Your task to perform on an android device: turn notification dots off Image 0: 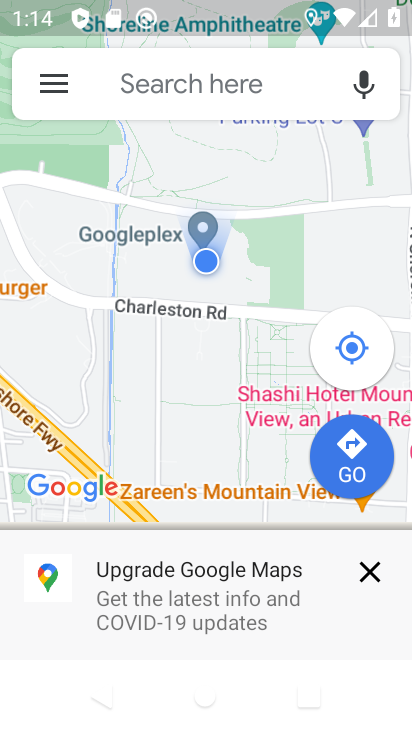
Step 0: press home button
Your task to perform on an android device: turn notification dots off Image 1: 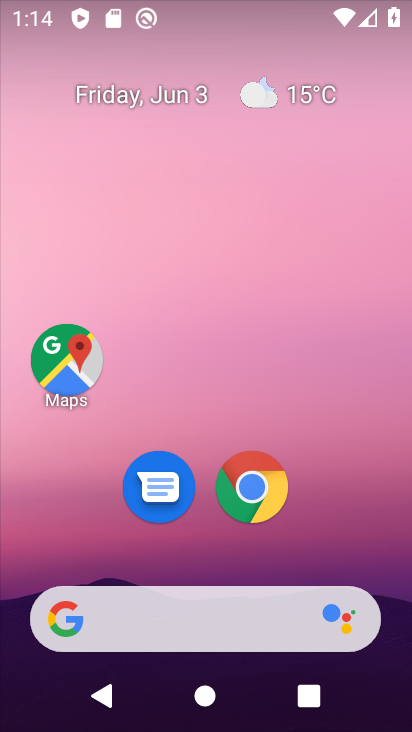
Step 1: drag from (160, 722) to (162, 85)
Your task to perform on an android device: turn notification dots off Image 2: 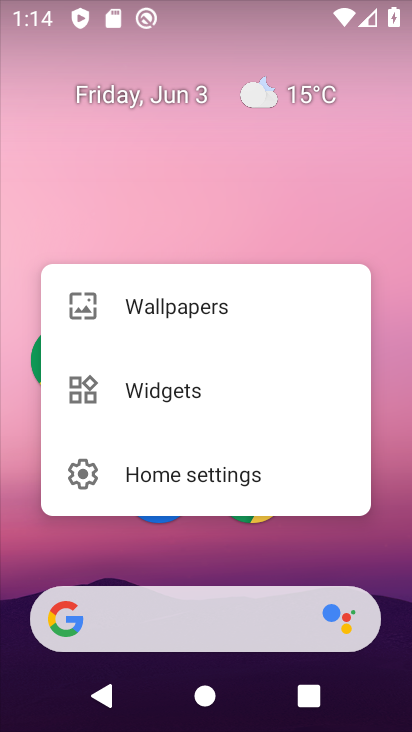
Step 2: click (201, 90)
Your task to perform on an android device: turn notification dots off Image 3: 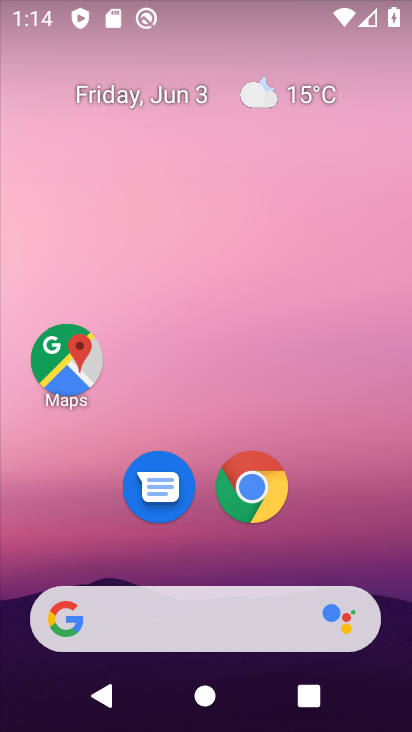
Step 3: drag from (166, 714) to (197, 12)
Your task to perform on an android device: turn notification dots off Image 4: 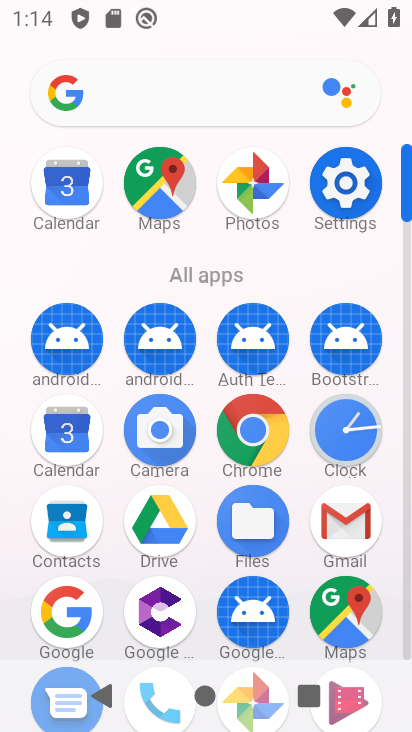
Step 4: click (334, 187)
Your task to perform on an android device: turn notification dots off Image 5: 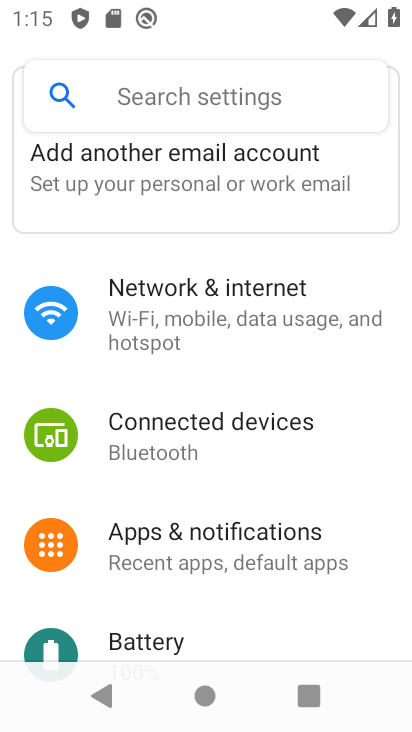
Step 5: click (202, 551)
Your task to perform on an android device: turn notification dots off Image 6: 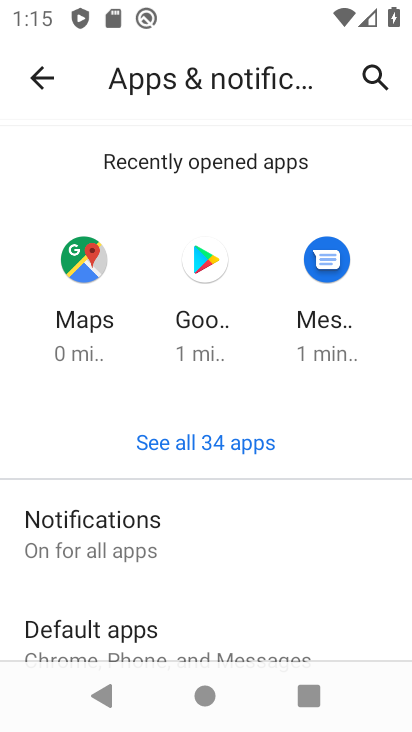
Step 6: click (148, 553)
Your task to perform on an android device: turn notification dots off Image 7: 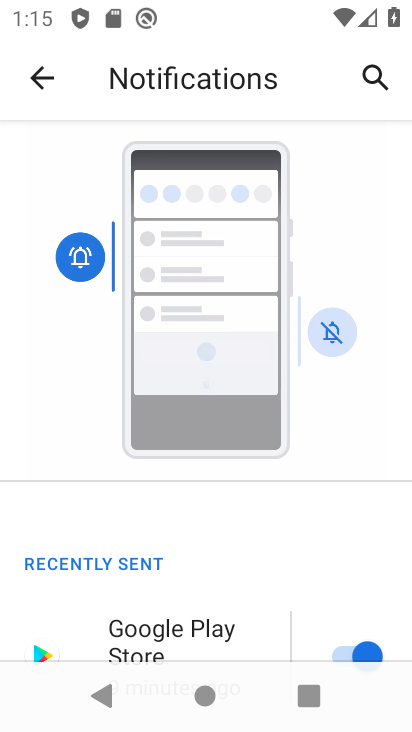
Step 7: drag from (227, 564) to (275, 206)
Your task to perform on an android device: turn notification dots off Image 8: 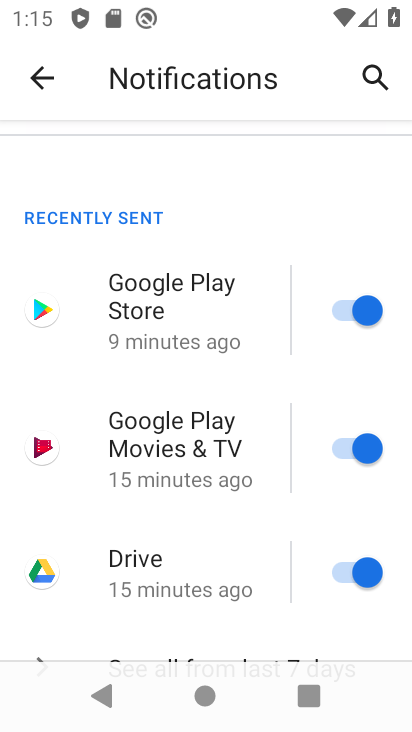
Step 8: drag from (227, 524) to (215, 253)
Your task to perform on an android device: turn notification dots off Image 9: 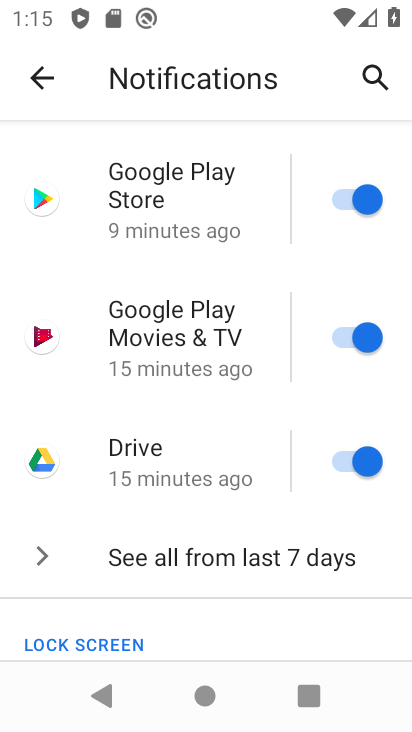
Step 9: drag from (186, 613) to (170, 227)
Your task to perform on an android device: turn notification dots off Image 10: 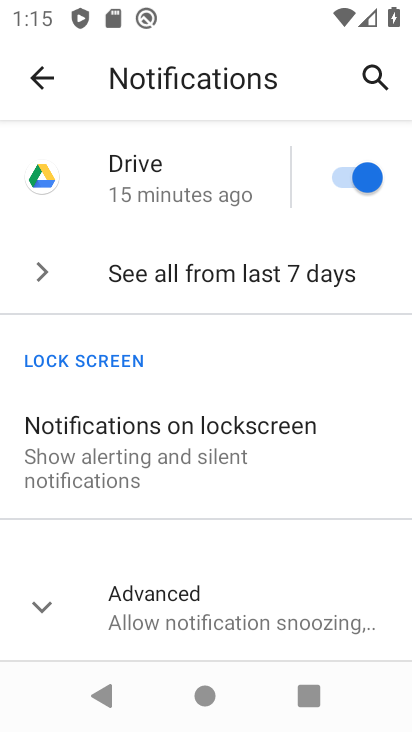
Step 10: click (200, 625)
Your task to perform on an android device: turn notification dots off Image 11: 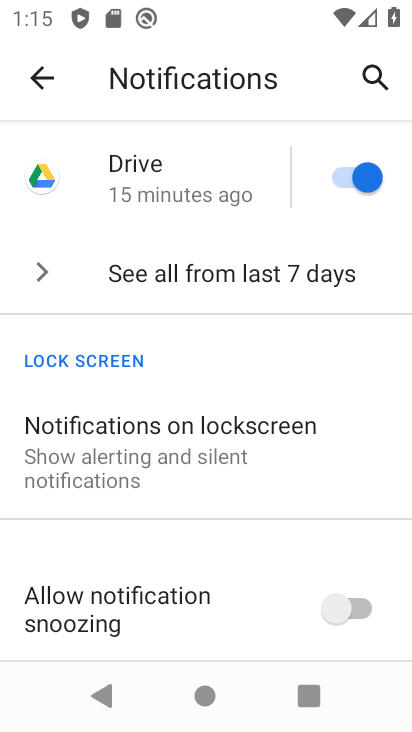
Step 11: drag from (187, 595) to (208, 274)
Your task to perform on an android device: turn notification dots off Image 12: 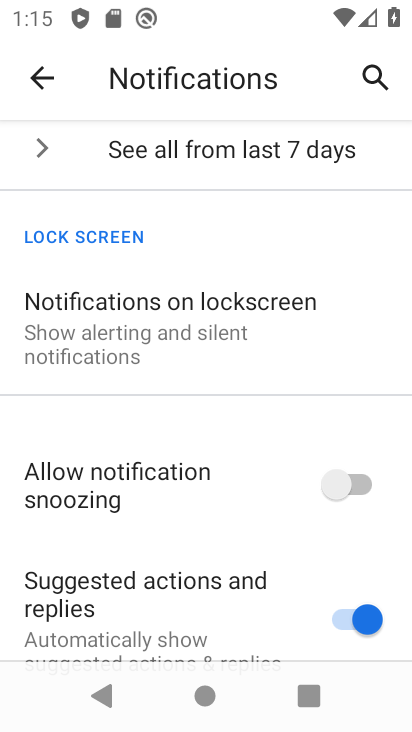
Step 12: drag from (209, 604) to (176, 266)
Your task to perform on an android device: turn notification dots off Image 13: 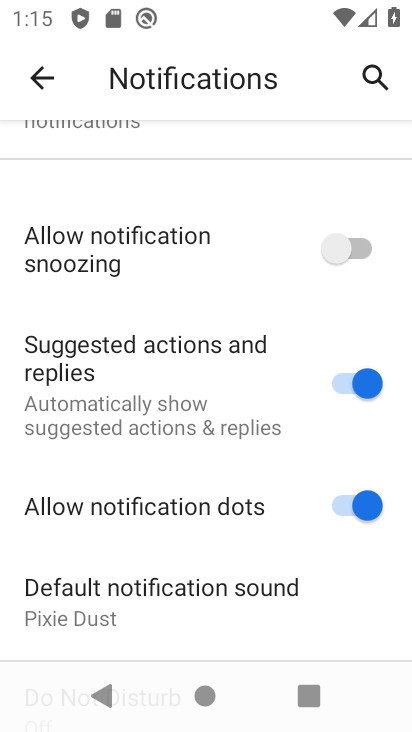
Step 13: click (355, 504)
Your task to perform on an android device: turn notification dots off Image 14: 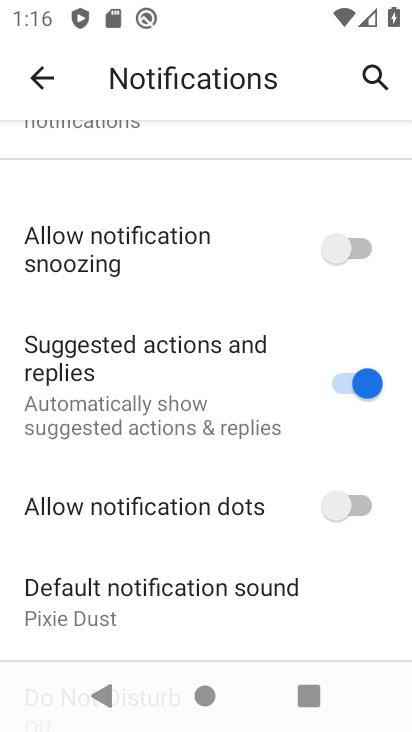
Step 14: task complete